Your task to perform on an android device: turn on bluetooth scan Image 0: 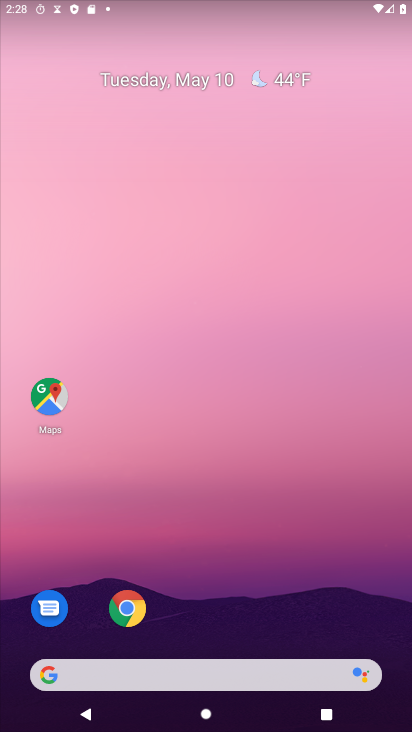
Step 0: drag from (318, 623) to (323, 54)
Your task to perform on an android device: turn on bluetooth scan Image 1: 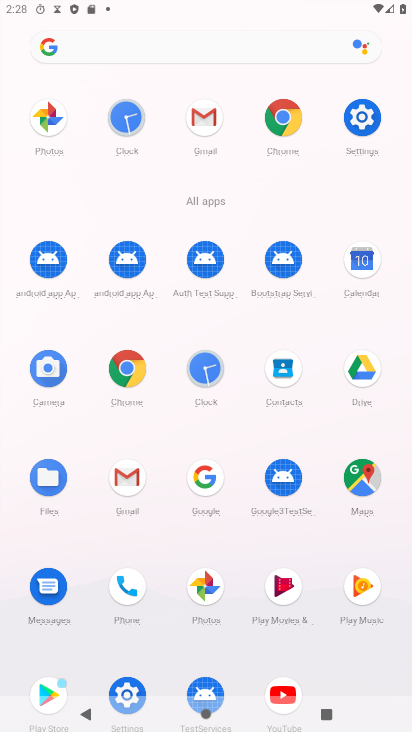
Step 1: click (363, 124)
Your task to perform on an android device: turn on bluetooth scan Image 2: 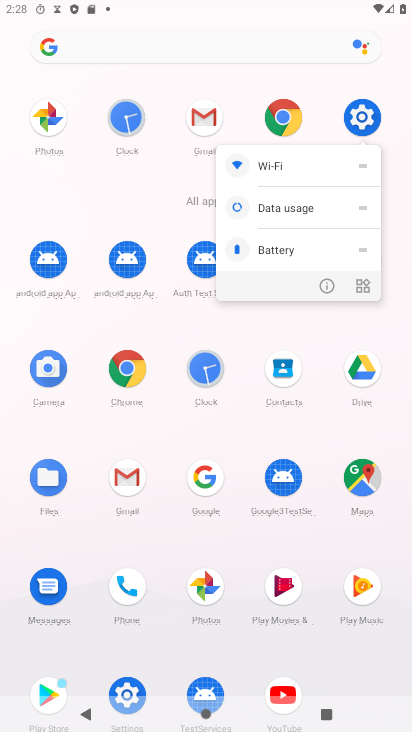
Step 2: click (363, 124)
Your task to perform on an android device: turn on bluetooth scan Image 3: 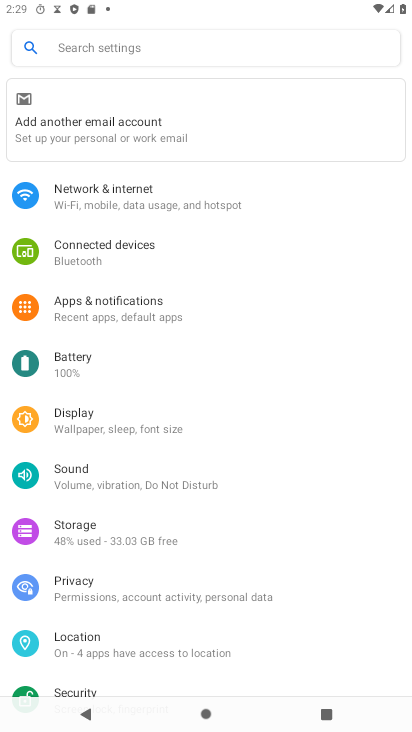
Step 3: click (74, 644)
Your task to perform on an android device: turn on bluetooth scan Image 4: 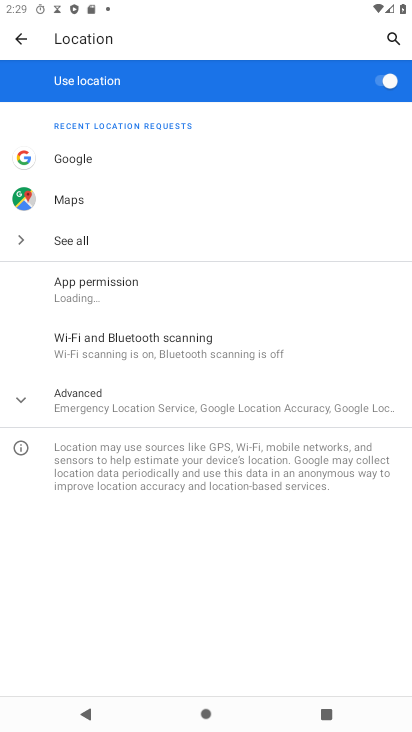
Step 4: click (100, 348)
Your task to perform on an android device: turn on bluetooth scan Image 5: 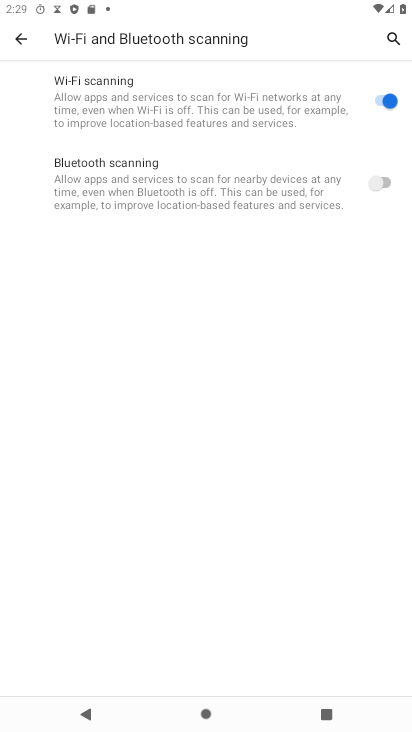
Step 5: click (377, 190)
Your task to perform on an android device: turn on bluetooth scan Image 6: 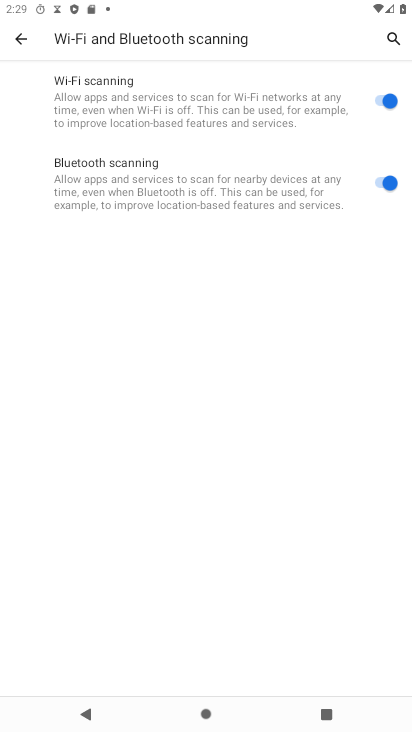
Step 6: task complete